Your task to perform on an android device: turn off javascript in the chrome app Image 0: 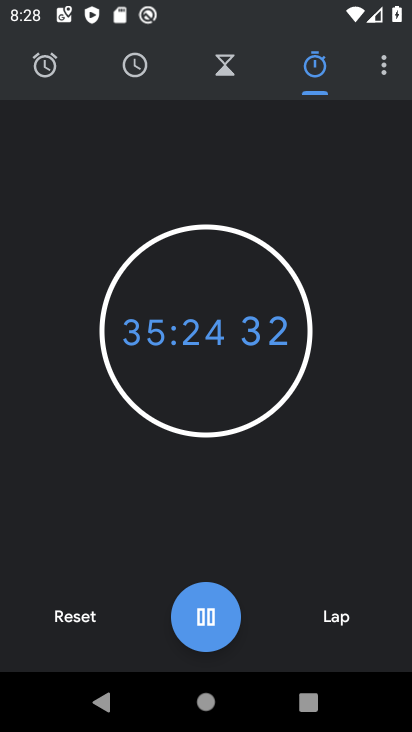
Step 0: press home button
Your task to perform on an android device: turn off javascript in the chrome app Image 1: 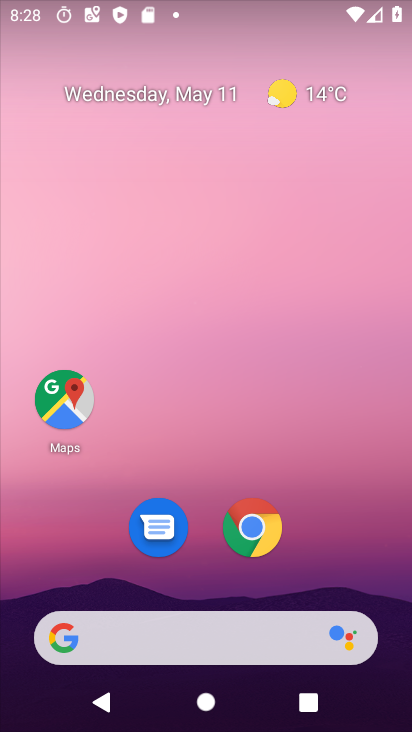
Step 1: click (260, 545)
Your task to perform on an android device: turn off javascript in the chrome app Image 2: 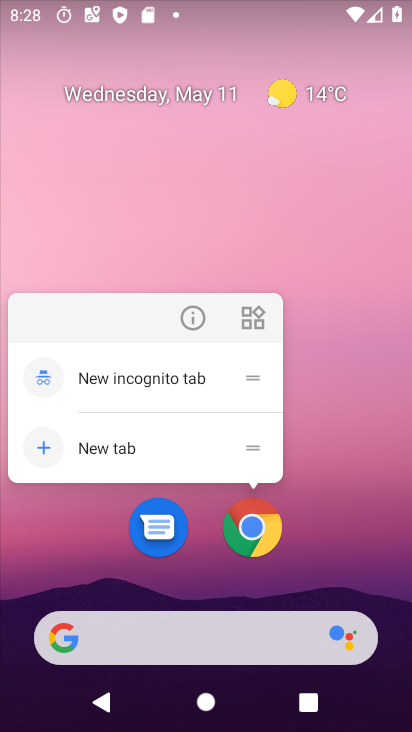
Step 2: click (260, 544)
Your task to perform on an android device: turn off javascript in the chrome app Image 3: 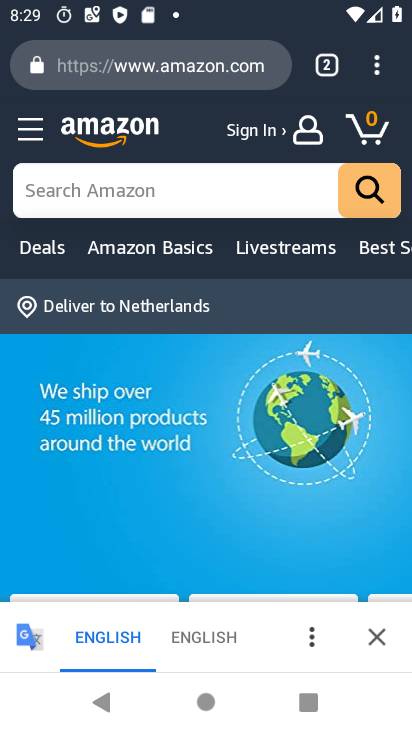
Step 3: click (382, 67)
Your task to perform on an android device: turn off javascript in the chrome app Image 4: 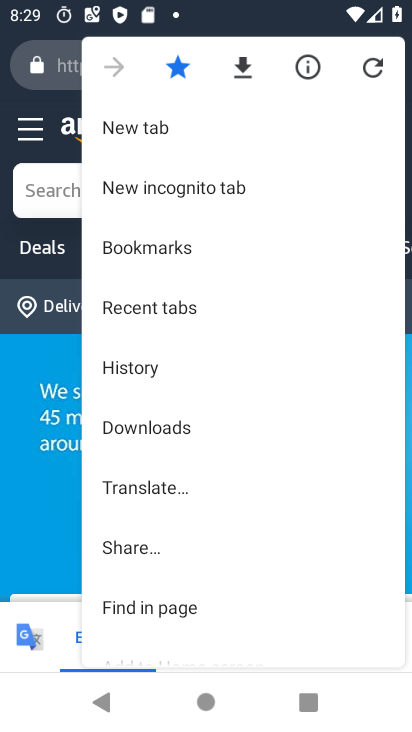
Step 4: drag from (250, 542) to (246, 201)
Your task to perform on an android device: turn off javascript in the chrome app Image 5: 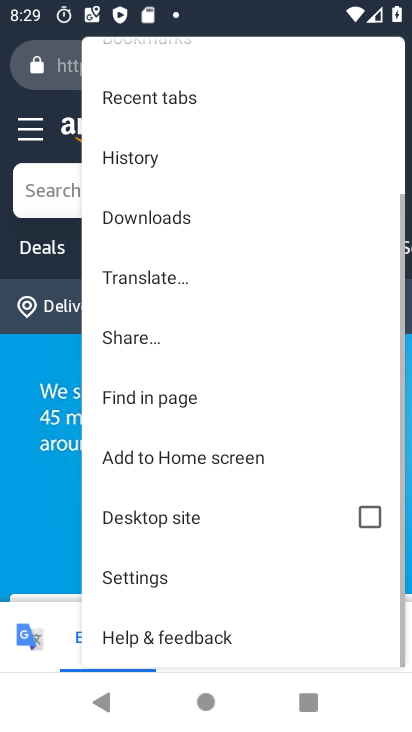
Step 5: click (236, 574)
Your task to perform on an android device: turn off javascript in the chrome app Image 6: 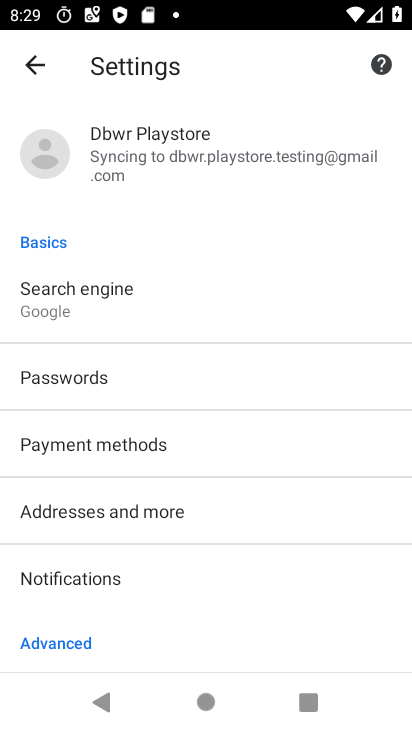
Step 6: drag from (235, 561) to (218, 199)
Your task to perform on an android device: turn off javascript in the chrome app Image 7: 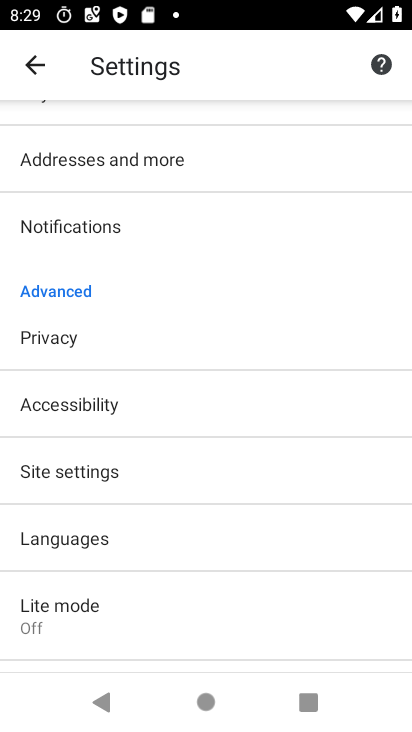
Step 7: drag from (147, 569) to (172, 205)
Your task to perform on an android device: turn off javascript in the chrome app Image 8: 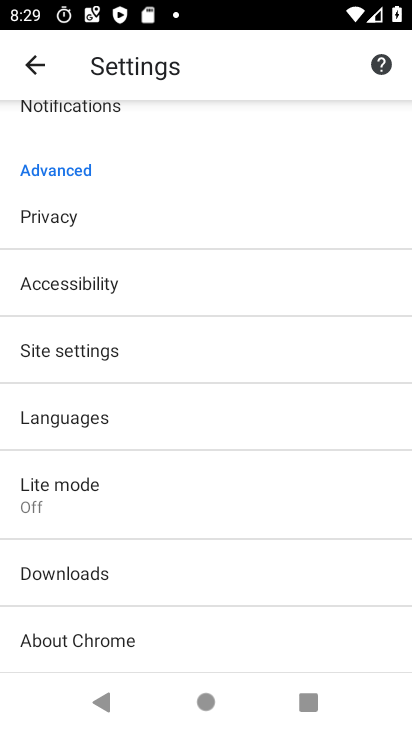
Step 8: drag from (111, 595) to (141, 325)
Your task to perform on an android device: turn off javascript in the chrome app Image 9: 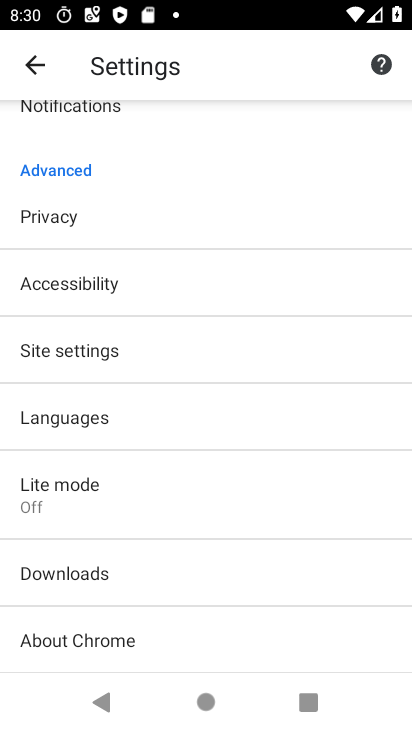
Step 9: click (130, 342)
Your task to perform on an android device: turn off javascript in the chrome app Image 10: 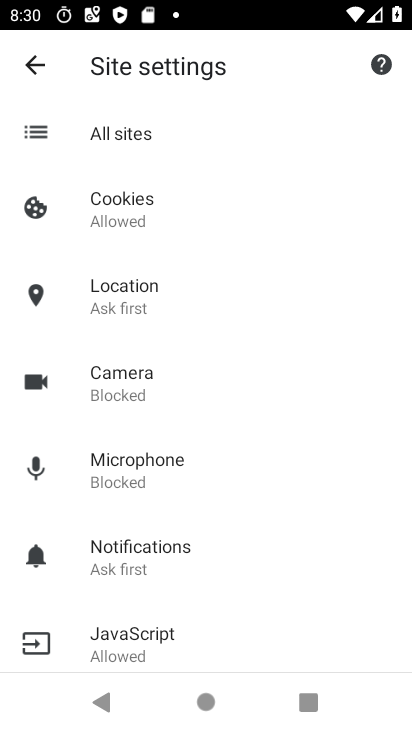
Step 10: drag from (178, 600) to (196, 429)
Your task to perform on an android device: turn off javascript in the chrome app Image 11: 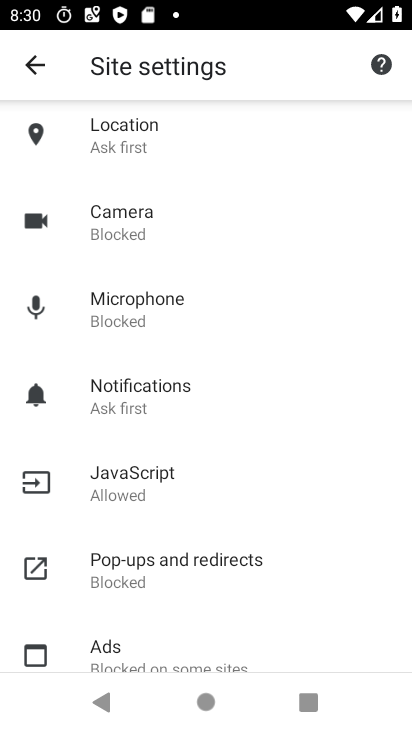
Step 11: click (190, 485)
Your task to perform on an android device: turn off javascript in the chrome app Image 12: 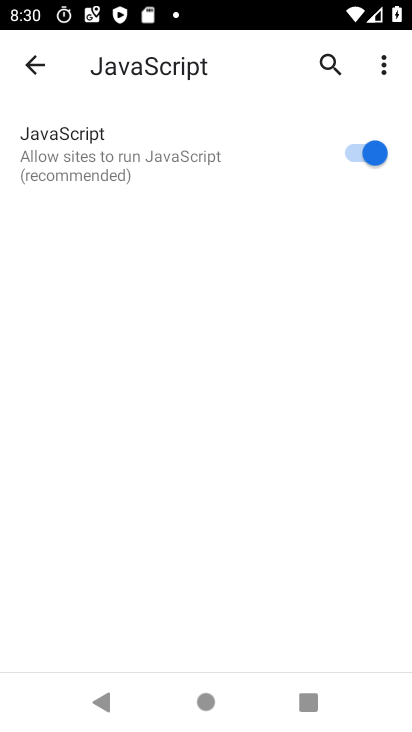
Step 12: click (356, 156)
Your task to perform on an android device: turn off javascript in the chrome app Image 13: 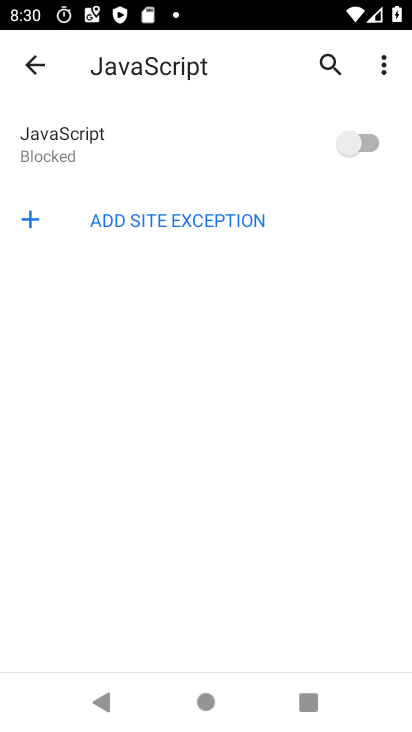
Step 13: task complete